Your task to perform on an android device: Open Chrome and go to settings Image 0: 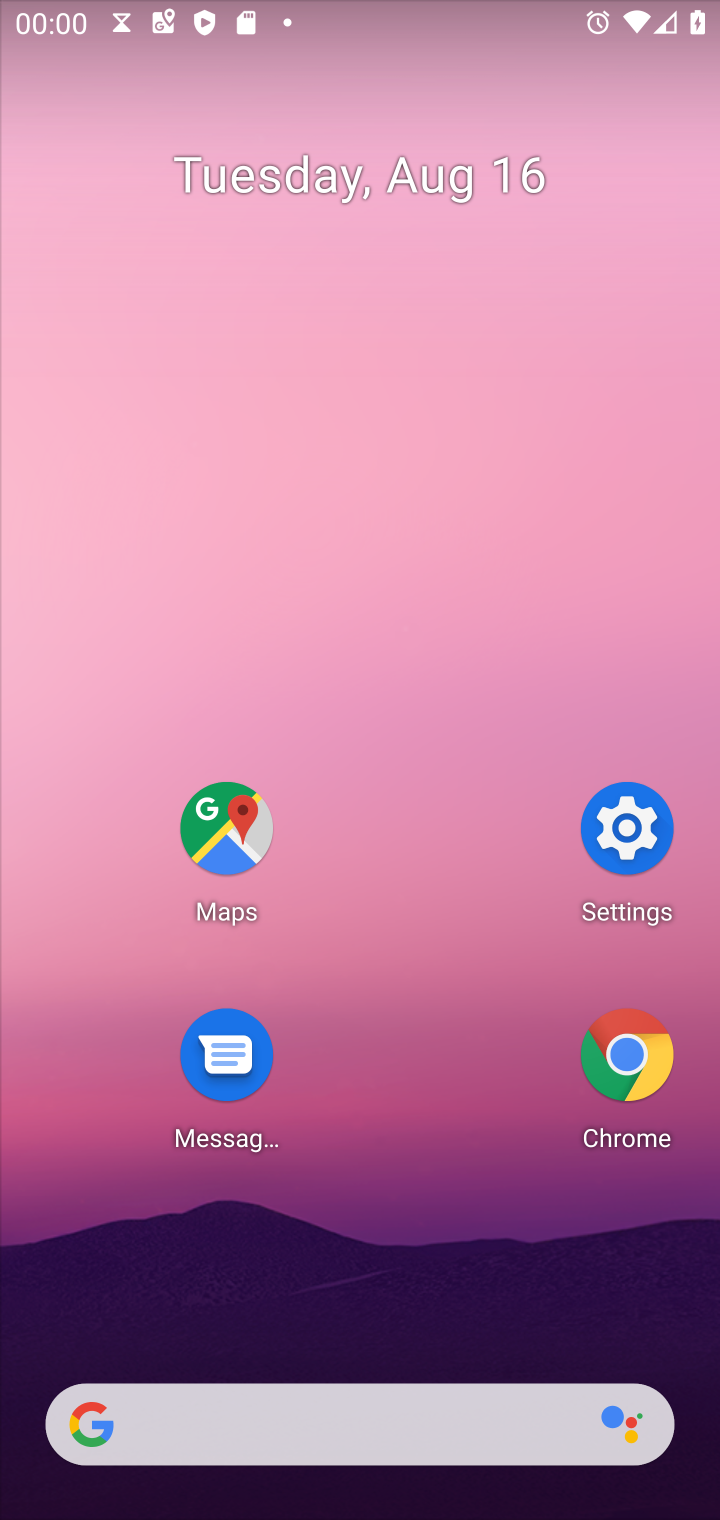
Step 0: press home button
Your task to perform on an android device: Open Chrome and go to settings Image 1: 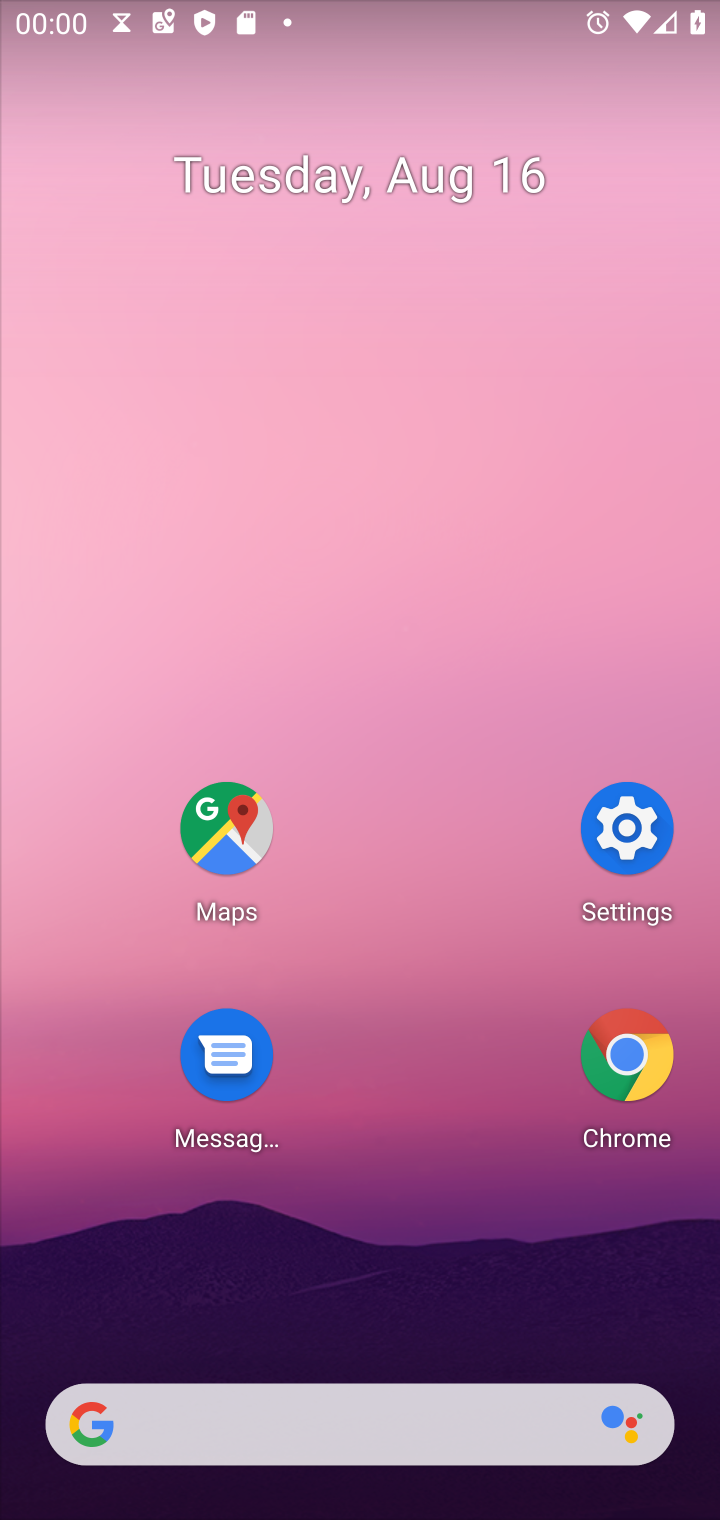
Step 1: click (624, 1059)
Your task to perform on an android device: Open Chrome and go to settings Image 2: 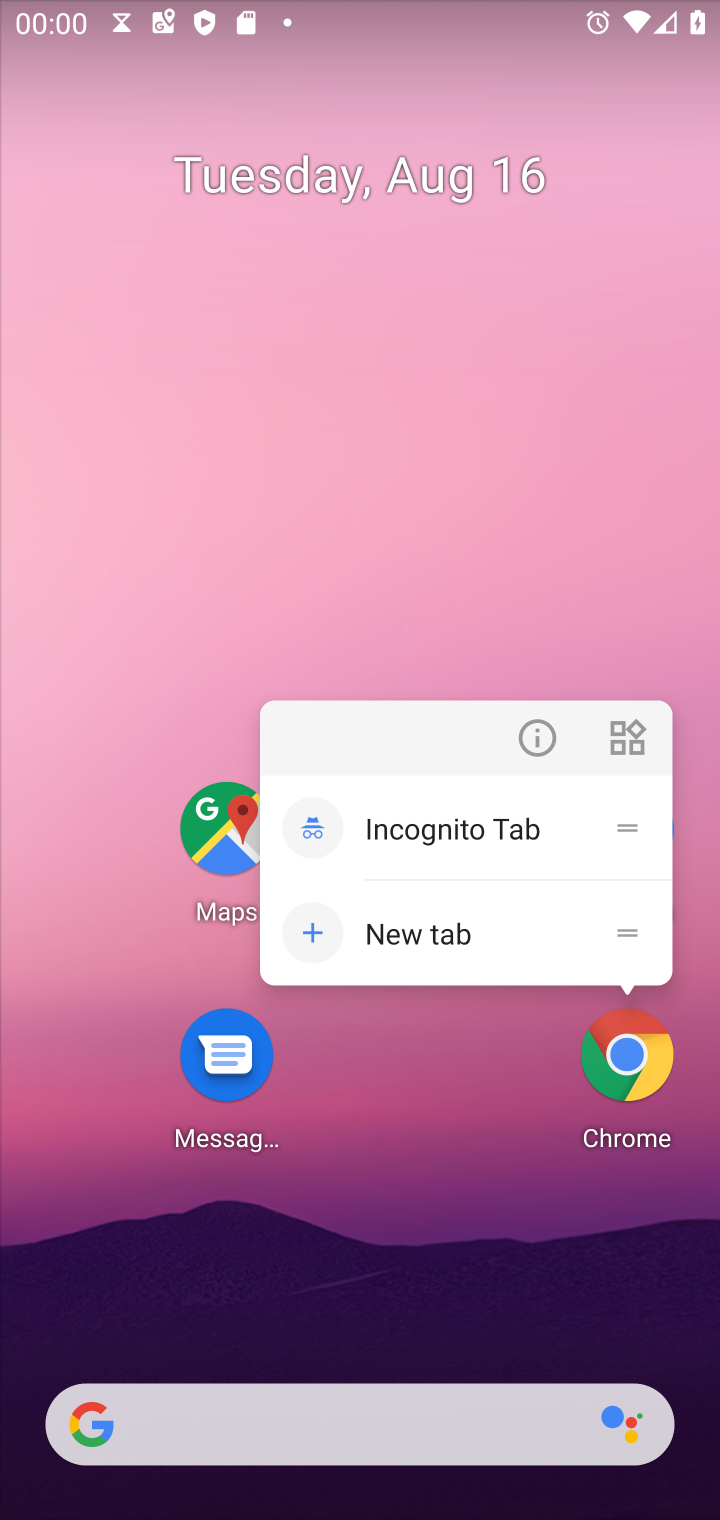
Step 2: click (624, 1064)
Your task to perform on an android device: Open Chrome and go to settings Image 3: 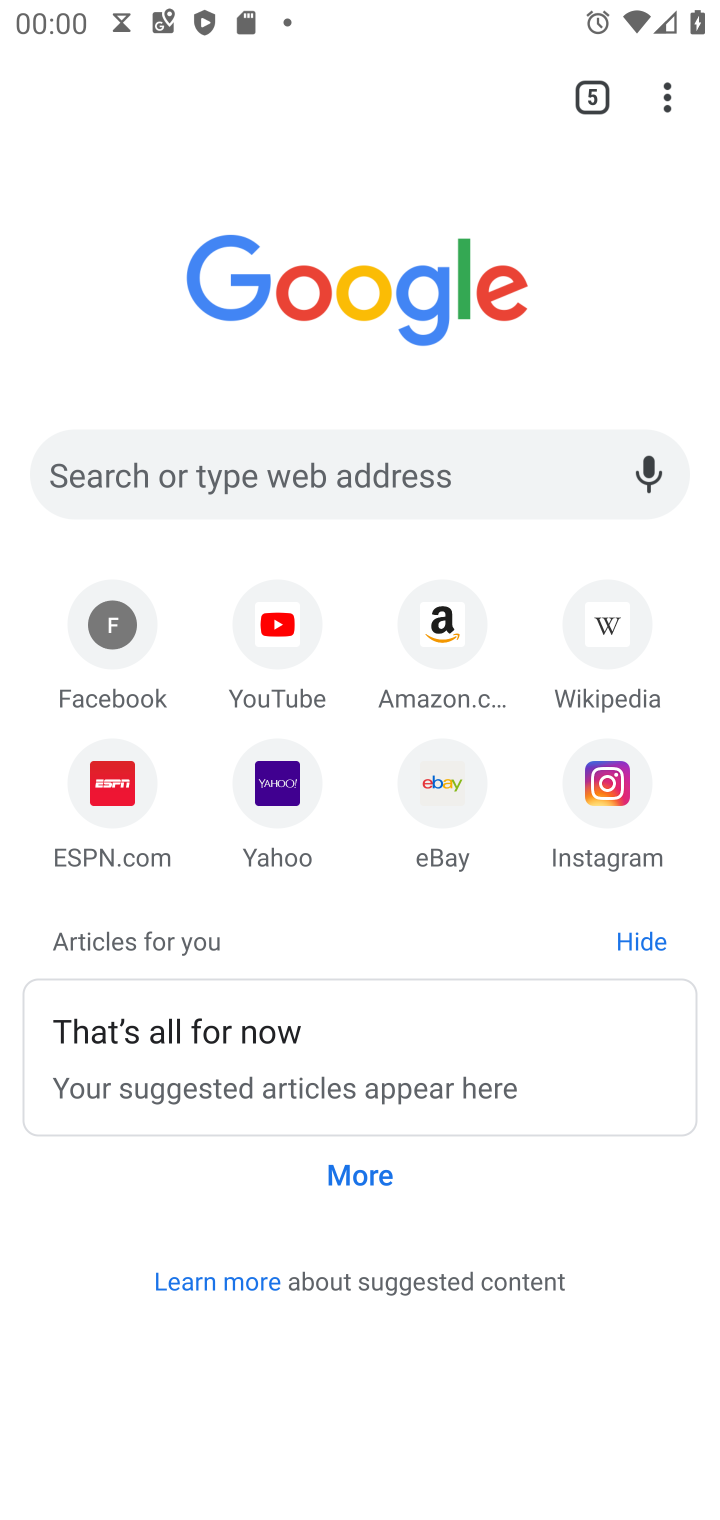
Step 3: task complete